Your task to perform on an android device: What's on my calendar tomorrow? Image 0: 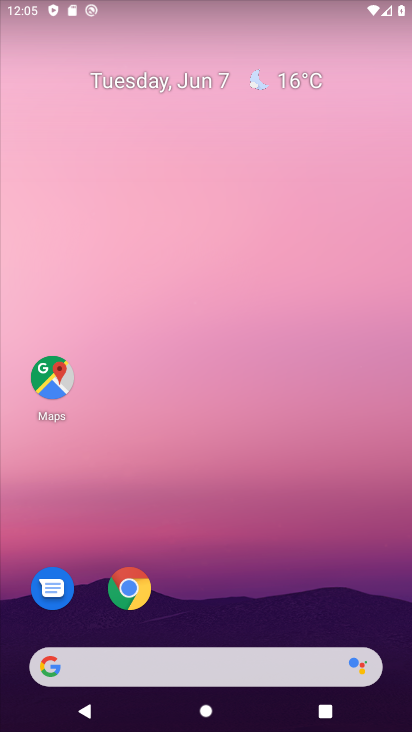
Step 0: drag from (297, 593) to (183, 155)
Your task to perform on an android device: What's on my calendar tomorrow? Image 1: 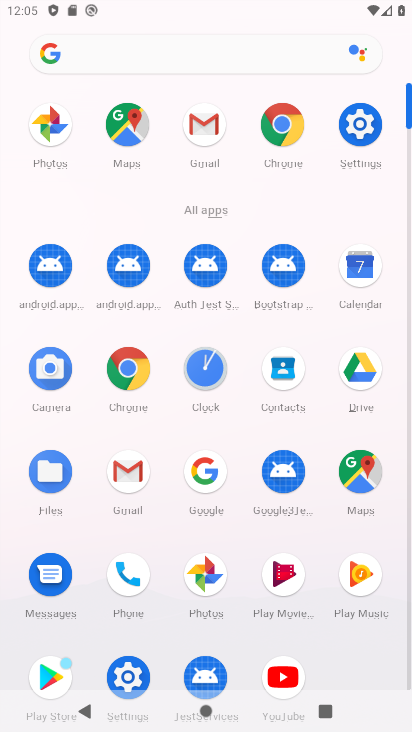
Step 1: click (387, 301)
Your task to perform on an android device: What's on my calendar tomorrow? Image 2: 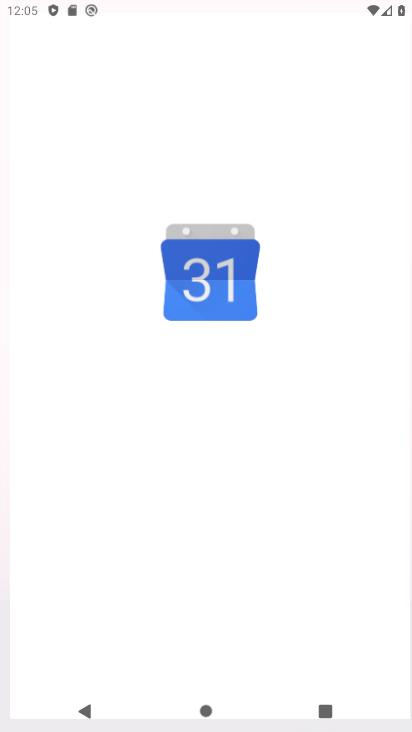
Step 2: task complete